Your task to perform on an android device: Go to location settings Image 0: 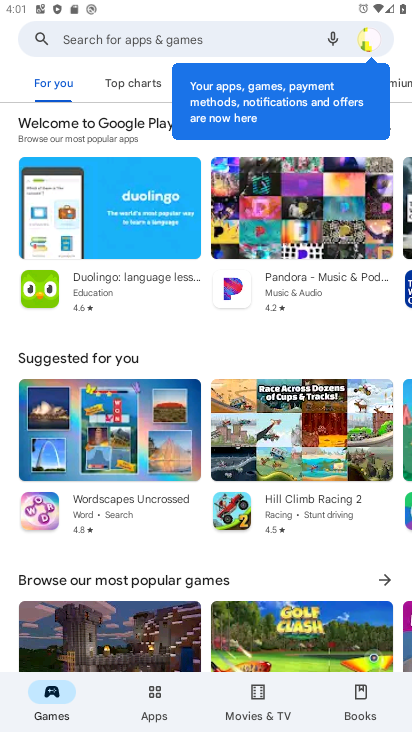
Step 0: press home button
Your task to perform on an android device: Go to location settings Image 1: 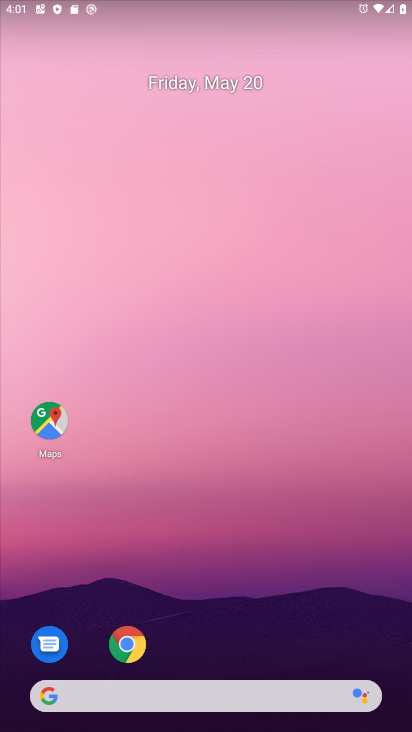
Step 1: drag from (275, 563) to (192, 179)
Your task to perform on an android device: Go to location settings Image 2: 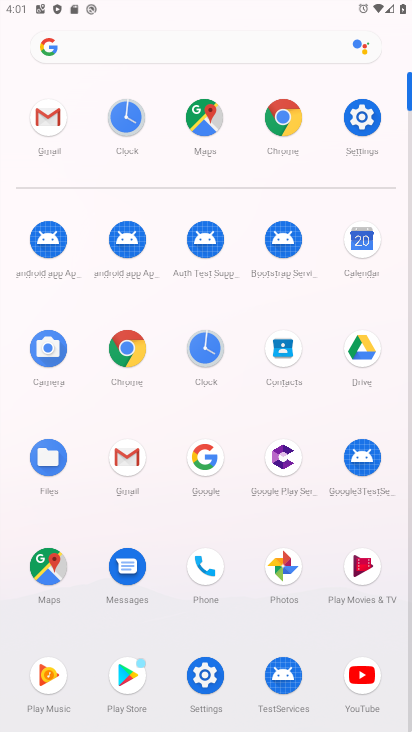
Step 2: click (351, 118)
Your task to perform on an android device: Go to location settings Image 3: 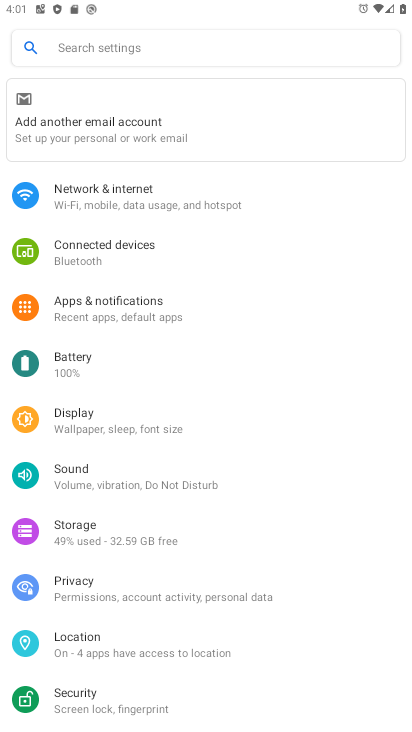
Step 3: click (168, 638)
Your task to perform on an android device: Go to location settings Image 4: 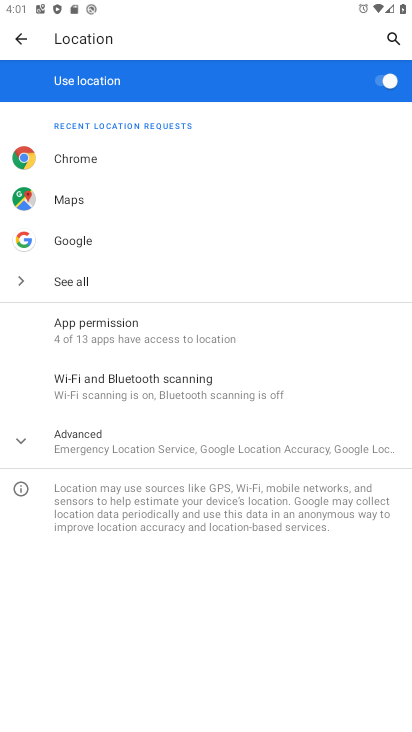
Step 4: task complete